Your task to perform on an android device: open app "Skype" Image 0: 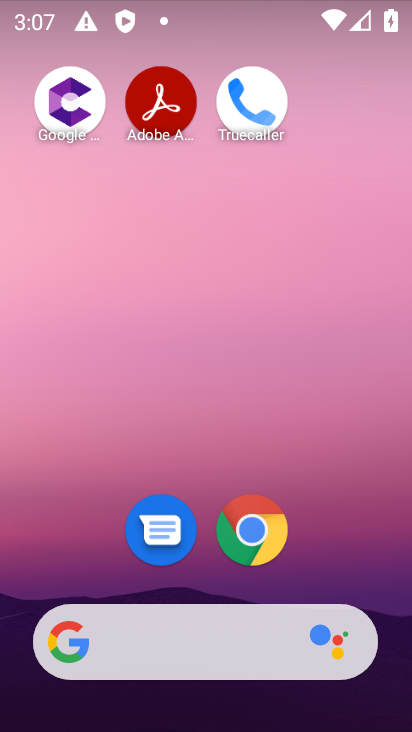
Step 0: drag from (324, 580) to (237, 4)
Your task to perform on an android device: open app "Skype" Image 1: 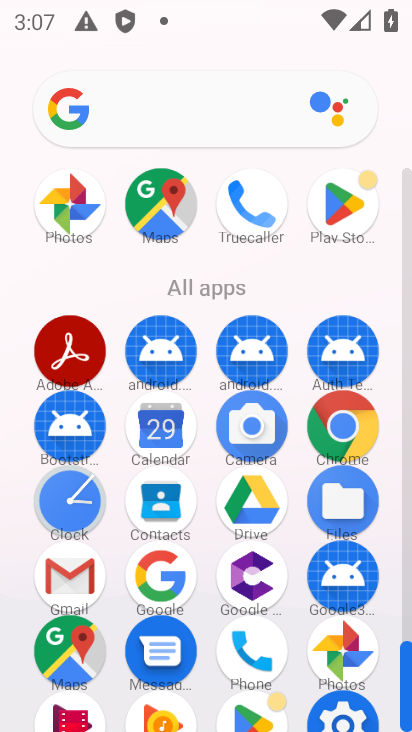
Step 1: click (331, 210)
Your task to perform on an android device: open app "Skype" Image 2: 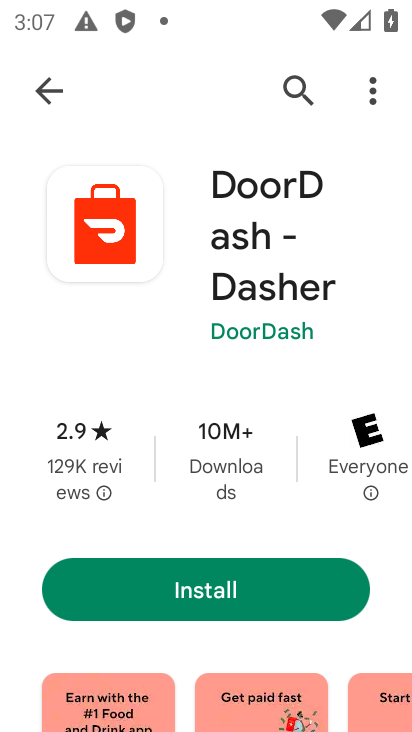
Step 2: click (290, 91)
Your task to perform on an android device: open app "Skype" Image 3: 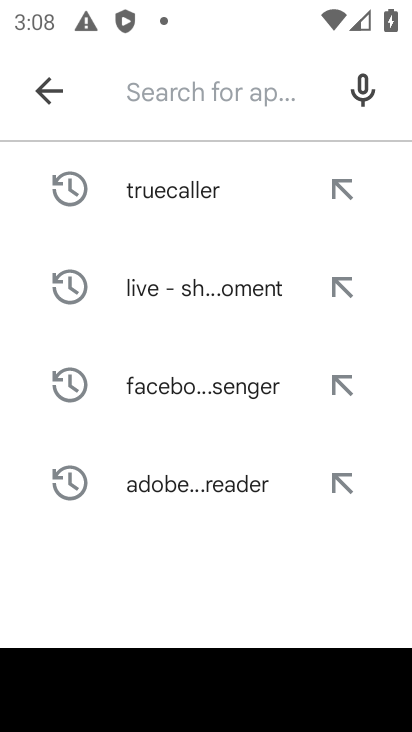
Step 3: type "Skype"
Your task to perform on an android device: open app "Skype" Image 4: 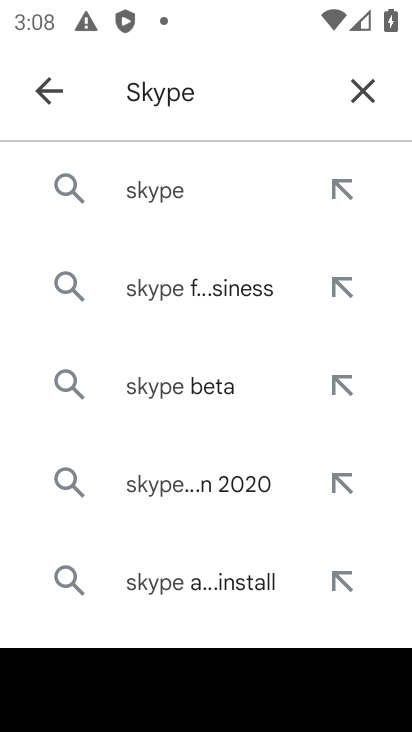
Step 4: click (161, 193)
Your task to perform on an android device: open app "Skype" Image 5: 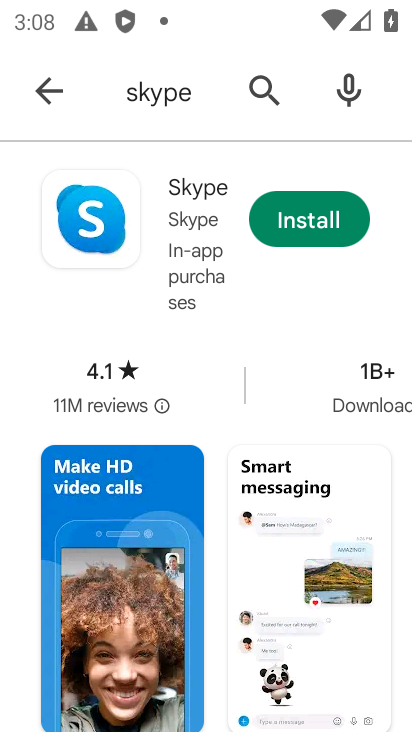
Step 5: task complete